Your task to perform on an android device: Open calendar and show me the fourth week of next month Image 0: 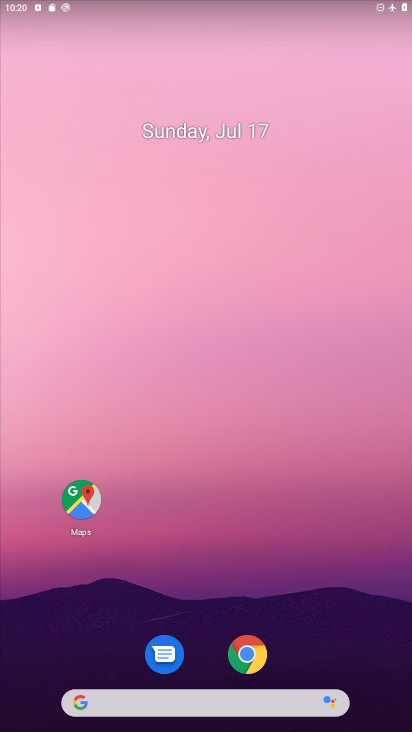
Step 0: drag from (208, 600) to (209, 156)
Your task to perform on an android device: Open calendar and show me the fourth week of next month Image 1: 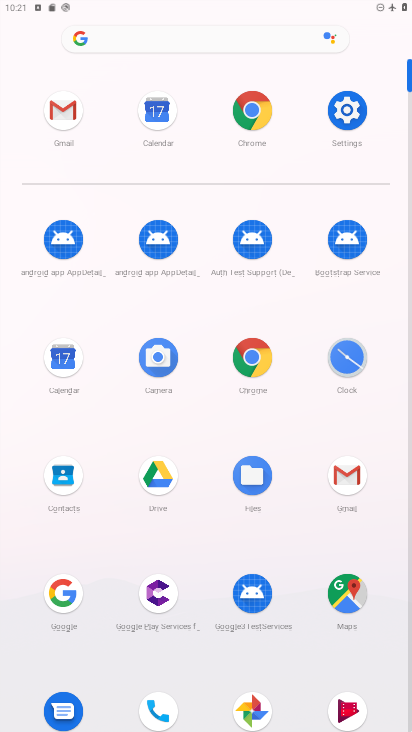
Step 1: click (151, 122)
Your task to perform on an android device: Open calendar and show me the fourth week of next month Image 2: 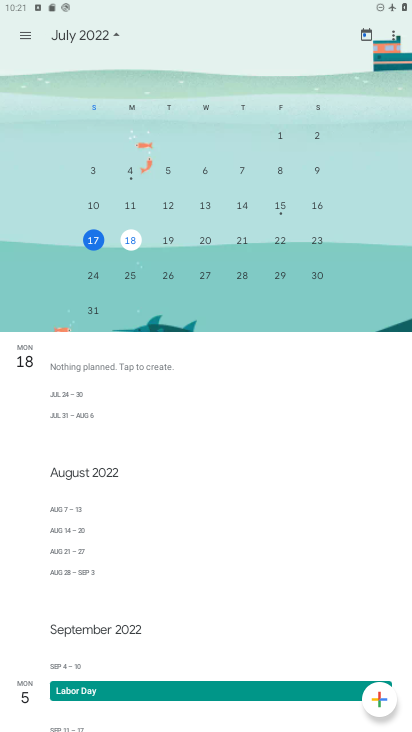
Step 2: drag from (358, 202) to (74, 168)
Your task to perform on an android device: Open calendar and show me the fourth week of next month Image 3: 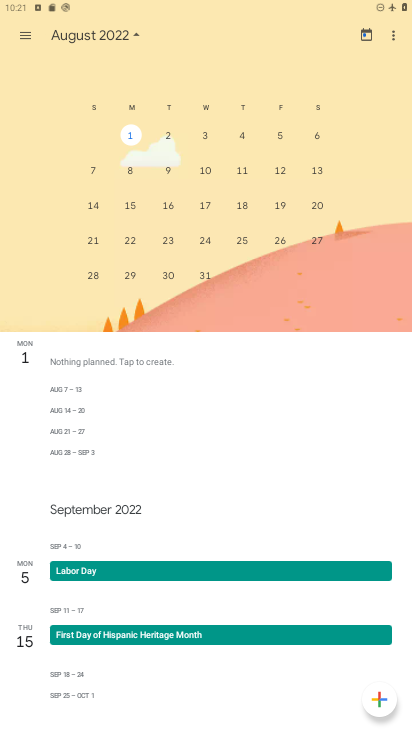
Step 3: click (90, 230)
Your task to perform on an android device: Open calendar and show me the fourth week of next month Image 4: 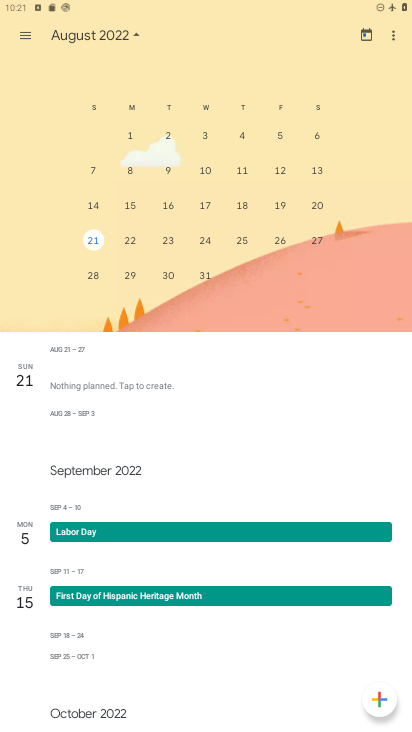
Step 4: task complete